Your task to perform on an android device: Go to notification settings Image 0: 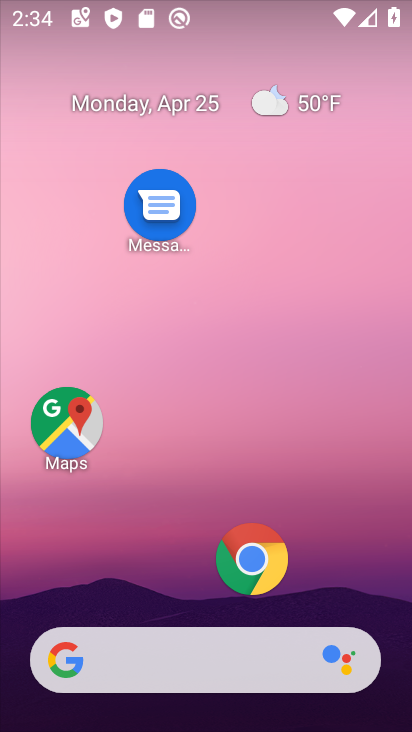
Step 0: drag from (168, 578) to (265, 2)
Your task to perform on an android device: Go to notification settings Image 1: 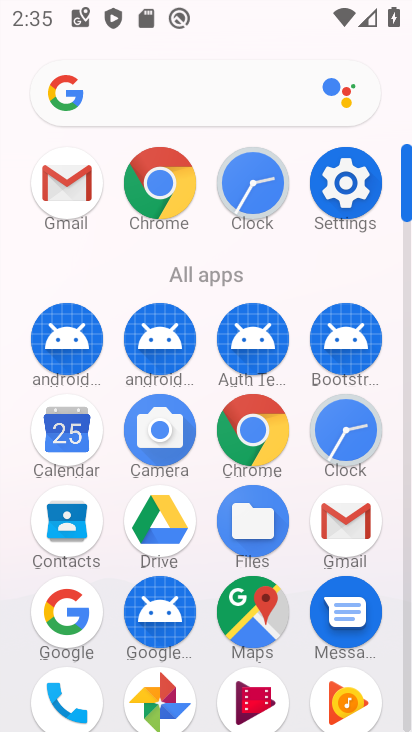
Step 1: drag from (211, 566) to (264, 104)
Your task to perform on an android device: Go to notification settings Image 2: 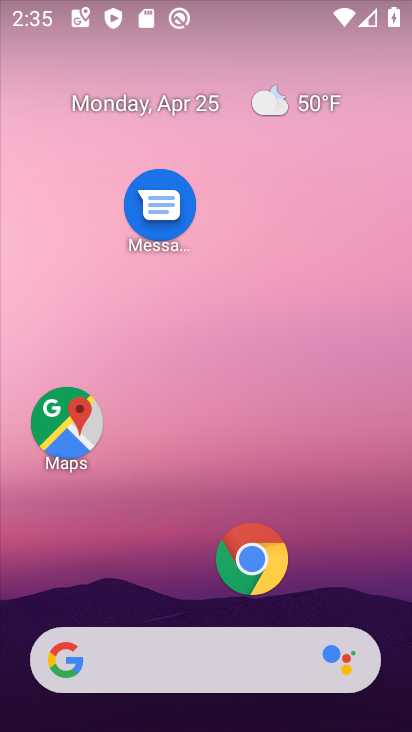
Step 2: drag from (179, 577) to (304, 7)
Your task to perform on an android device: Go to notification settings Image 3: 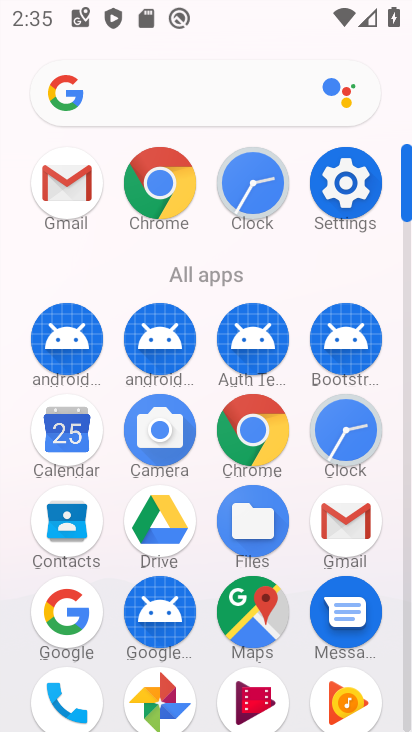
Step 3: drag from (204, 570) to (273, 0)
Your task to perform on an android device: Go to notification settings Image 4: 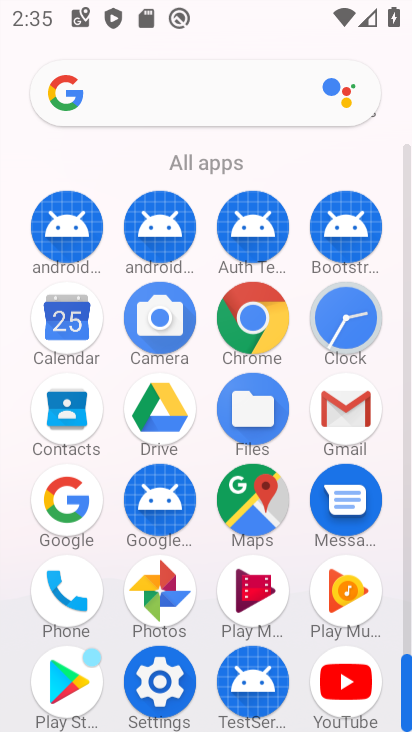
Step 4: click (159, 626)
Your task to perform on an android device: Go to notification settings Image 5: 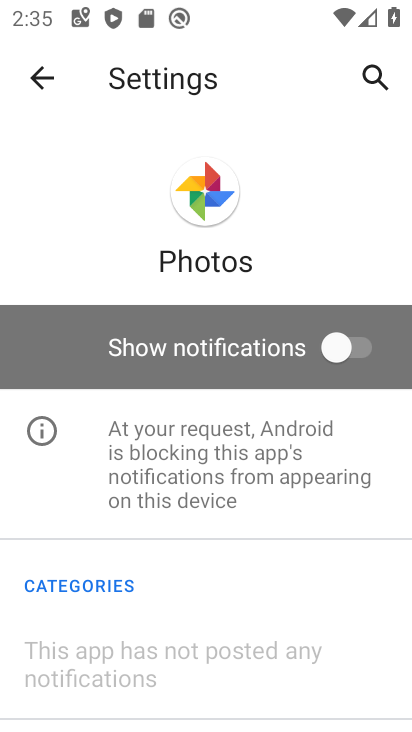
Step 5: press home button
Your task to perform on an android device: Go to notification settings Image 6: 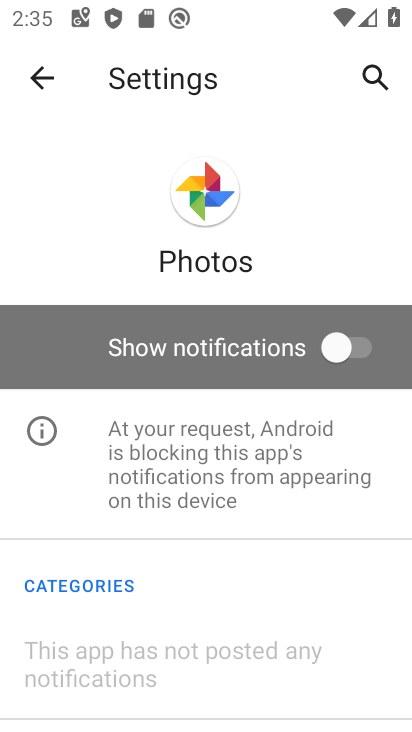
Step 6: press home button
Your task to perform on an android device: Go to notification settings Image 7: 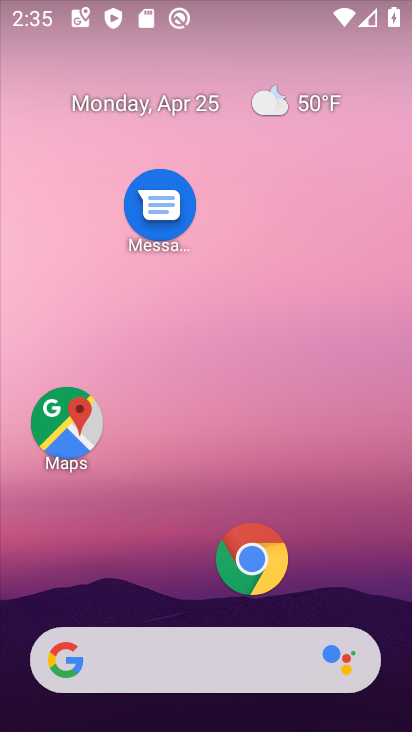
Step 7: drag from (165, 581) to (292, 12)
Your task to perform on an android device: Go to notification settings Image 8: 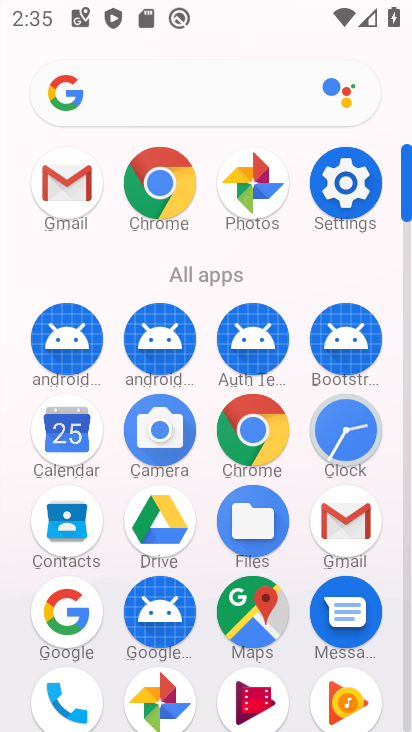
Step 8: click (354, 205)
Your task to perform on an android device: Go to notification settings Image 9: 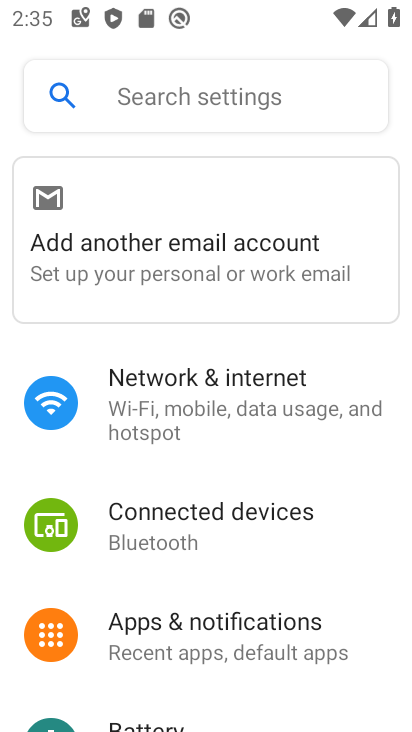
Step 9: drag from (186, 604) to (208, 455)
Your task to perform on an android device: Go to notification settings Image 10: 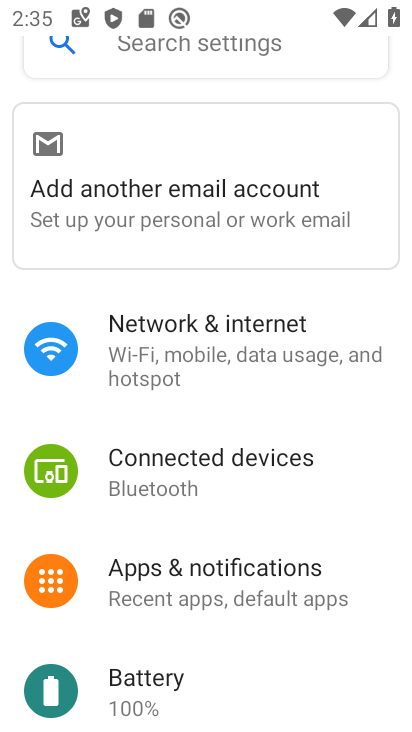
Step 10: click (208, 567)
Your task to perform on an android device: Go to notification settings Image 11: 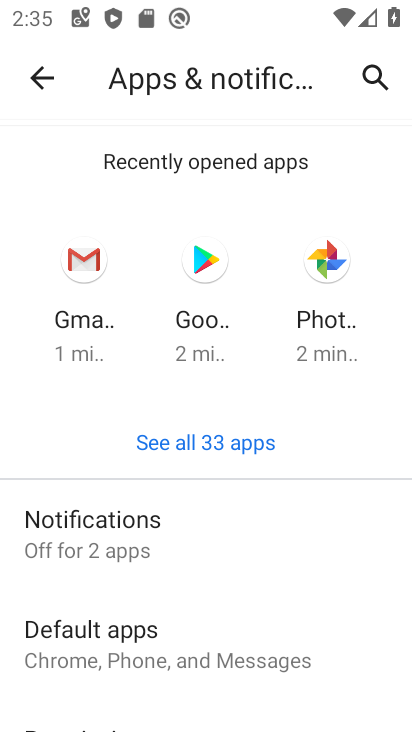
Step 11: click (119, 528)
Your task to perform on an android device: Go to notification settings Image 12: 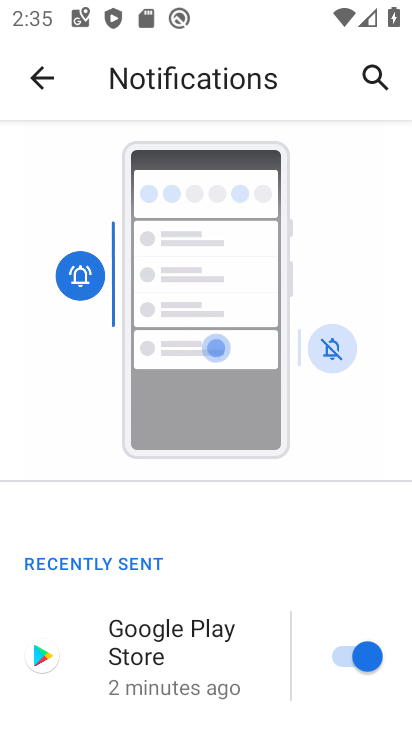
Step 12: task complete